Your task to perform on an android device: When is my next meeting? Image 0: 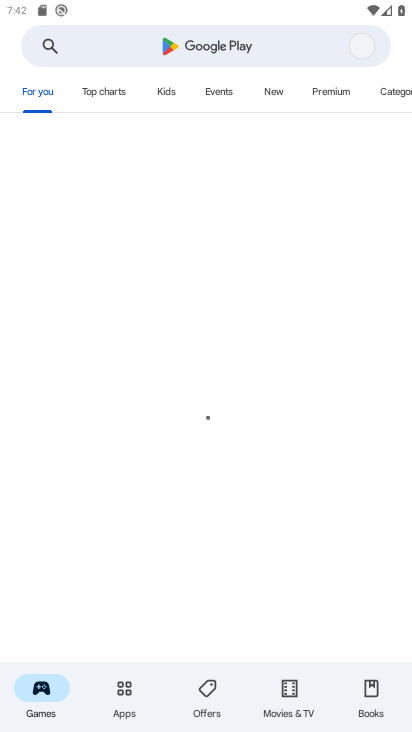
Step 0: press home button
Your task to perform on an android device: When is my next meeting? Image 1: 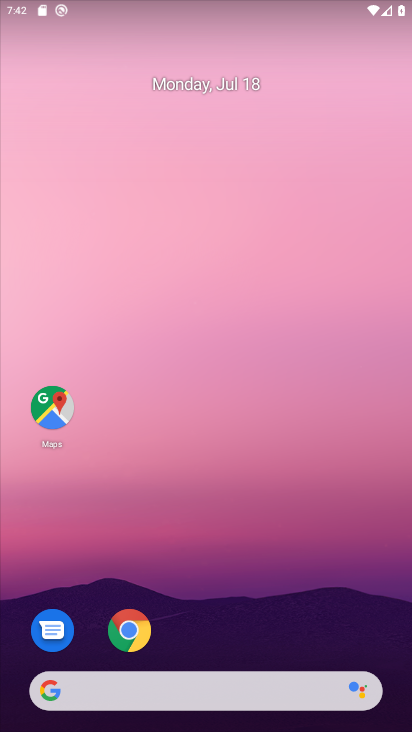
Step 1: drag from (183, 626) to (234, 231)
Your task to perform on an android device: When is my next meeting? Image 2: 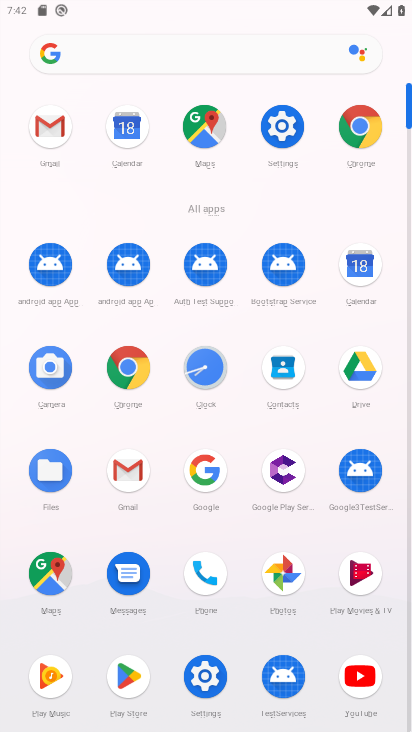
Step 2: click (362, 255)
Your task to perform on an android device: When is my next meeting? Image 3: 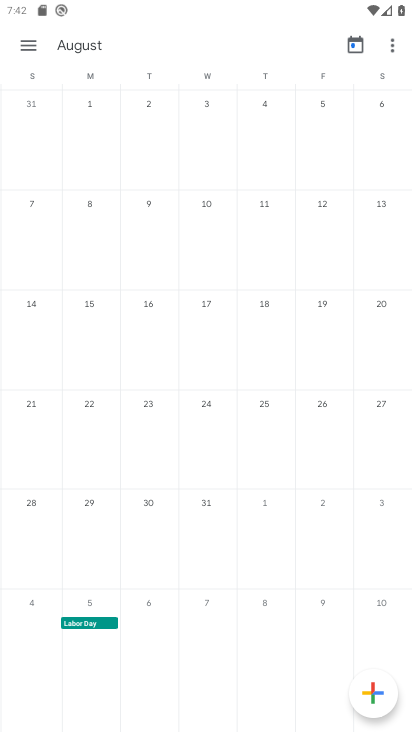
Step 3: drag from (28, 228) to (412, 279)
Your task to perform on an android device: When is my next meeting? Image 4: 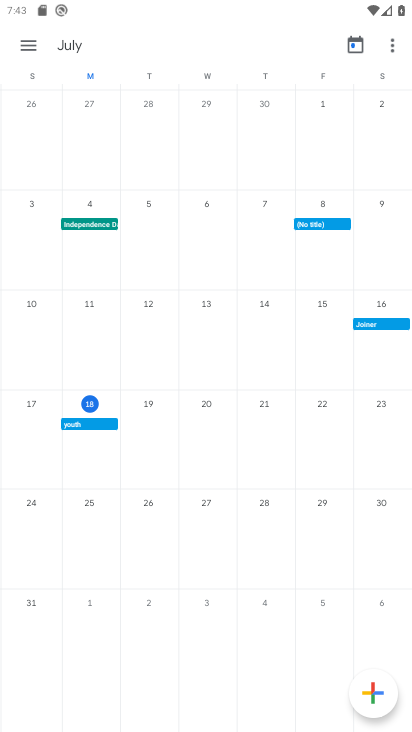
Step 4: click (201, 405)
Your task to perform on an android device: When is my next meeting? Image 5: 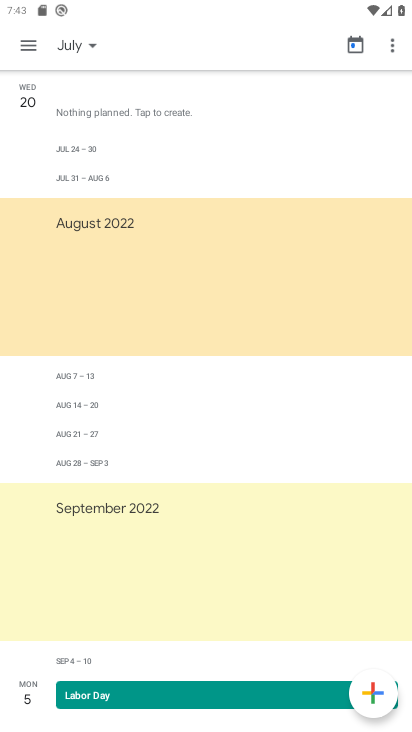
Step 5: task complete